Your task to perform on an android device: Open the web browser Image 0: 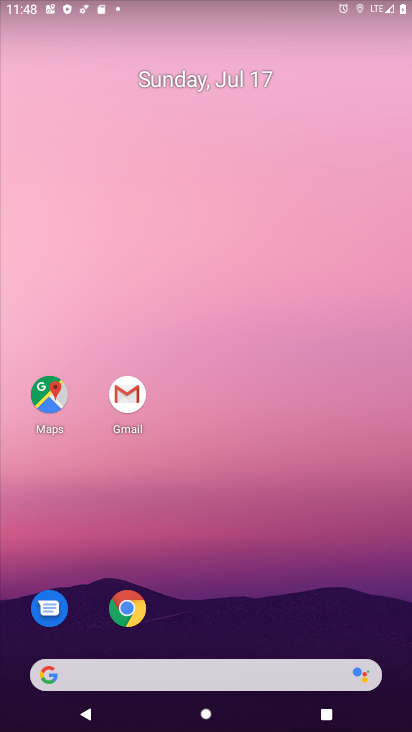
Step 0: click (211, 666)
Your task to perform on an android device: Open the web browser Image 1: 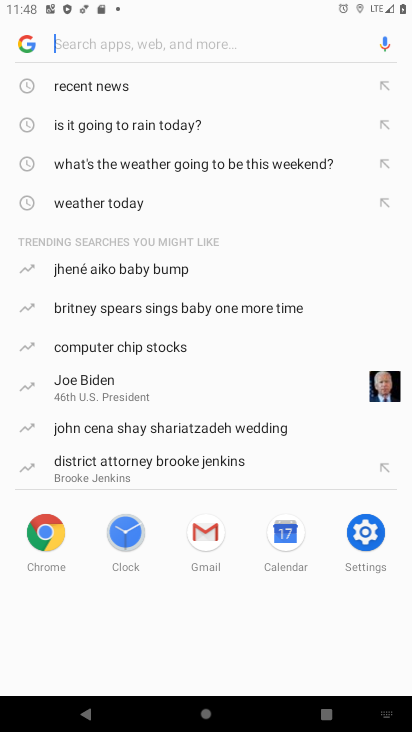
Step 1: task complete